Your task to perform on an android device: install app "DoorDash - Food Delivery" Image 0: 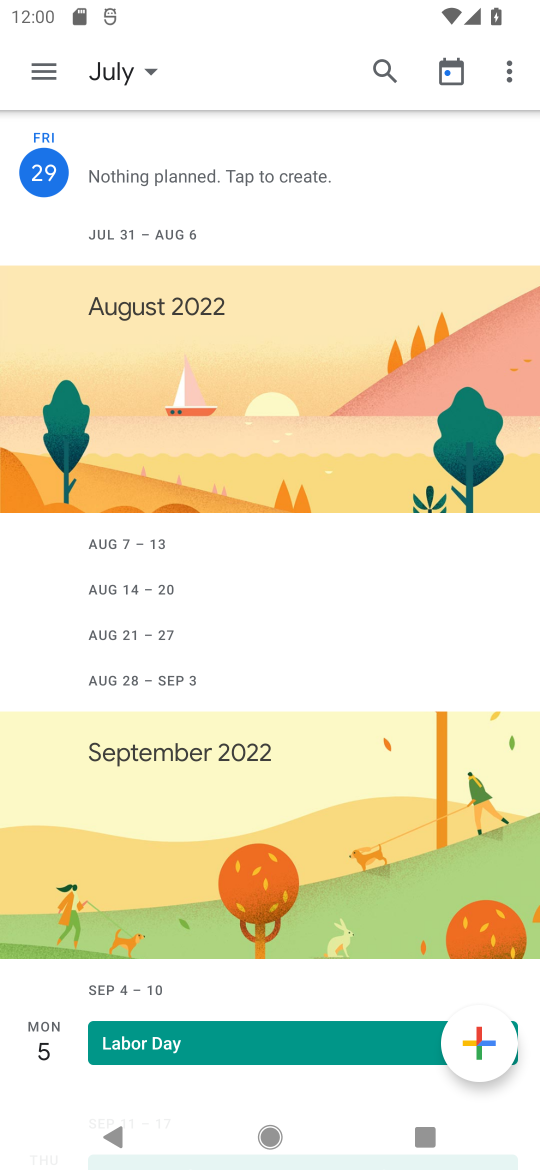
Step 0: press home button
Your task to perform on an android device: install app "DoorDash - Food Delivery" Image 1: 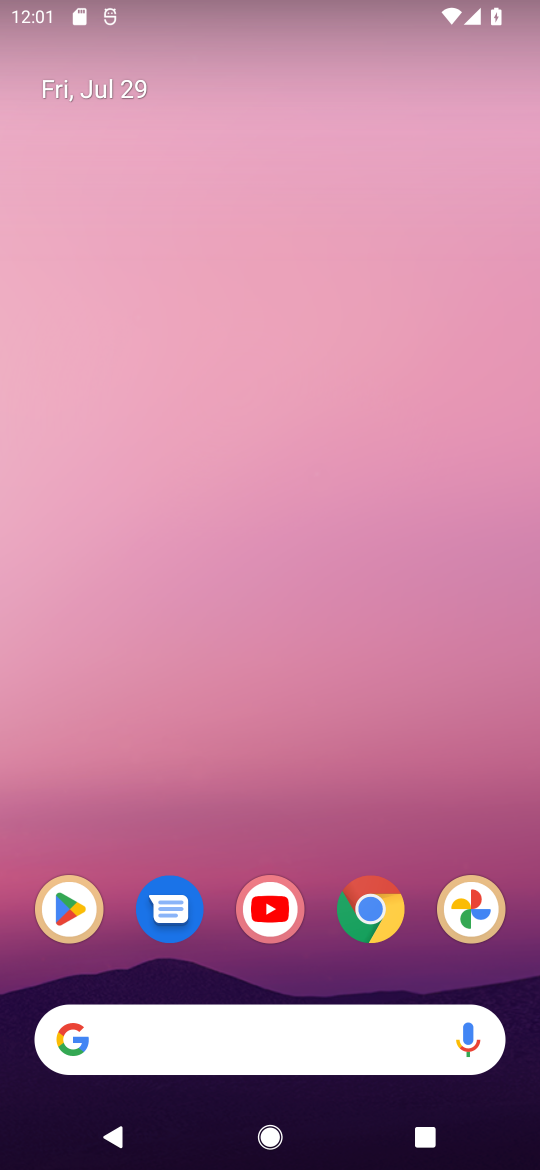
Step 1: click (60, 917)
Your task to perform on an android device: install app "DoorDash - Food Delivery" Image 2: 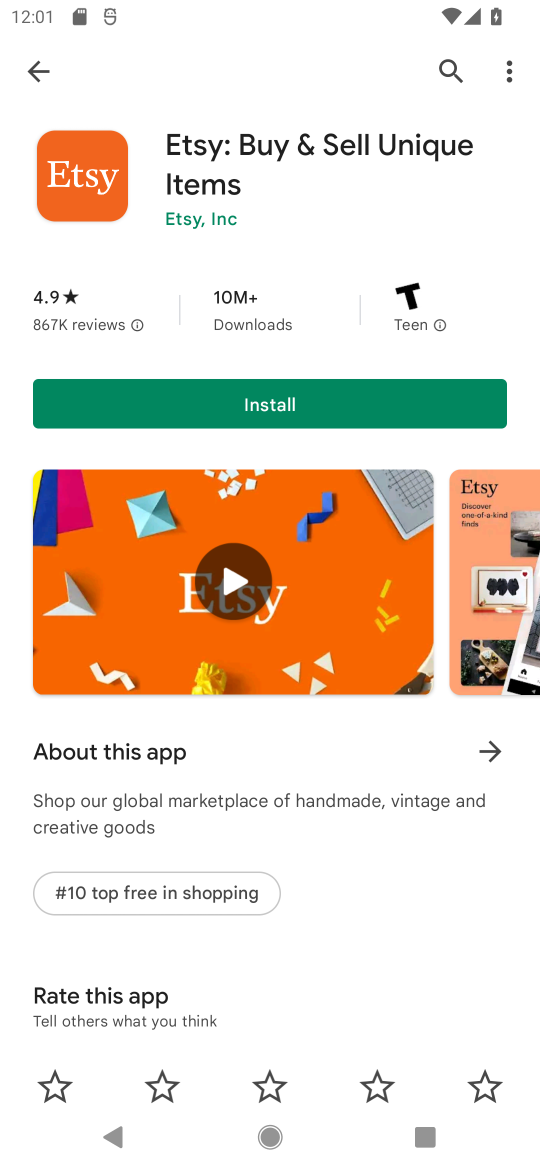
Step 2: click (446, 69)
Your task to perform on an android device: install app "DoorDash - Food Delivery" Image 3: 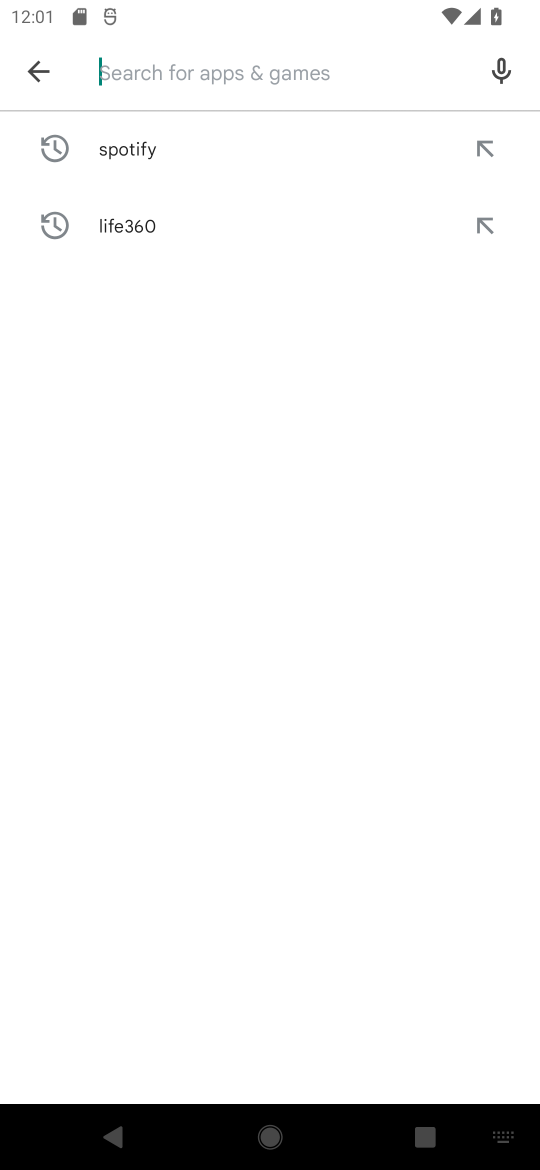
Step 3: type "DoorDash - Food Delivery"
Your task to perform on an android device: install app "DoorDash - Food Delivery" Image 4: 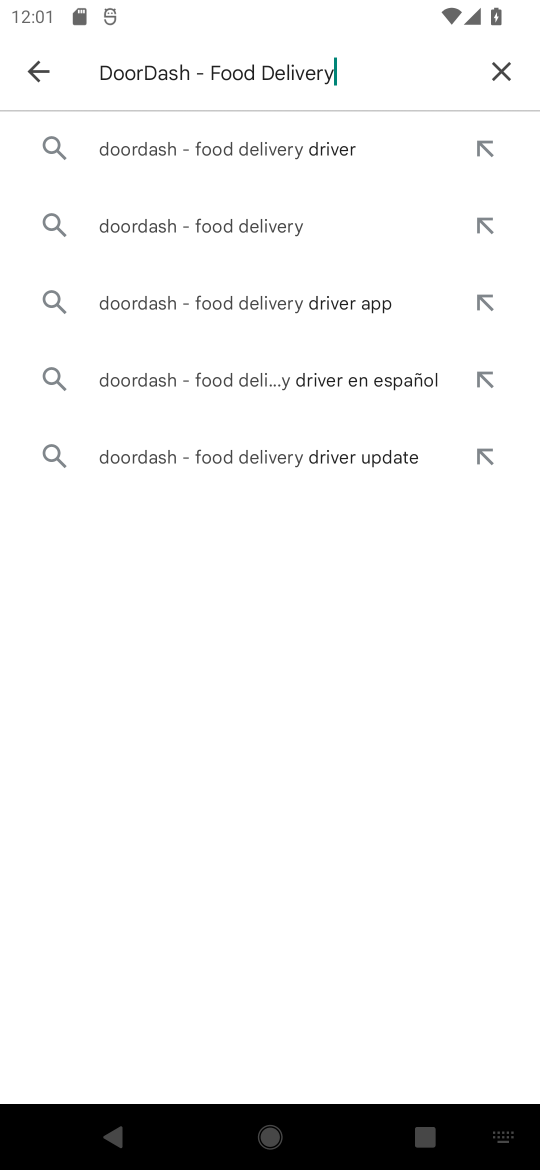
Step 4: click (407, 129)
Your task to perform on an android device: install app "DoorDash - Food Delivery" Image 5: 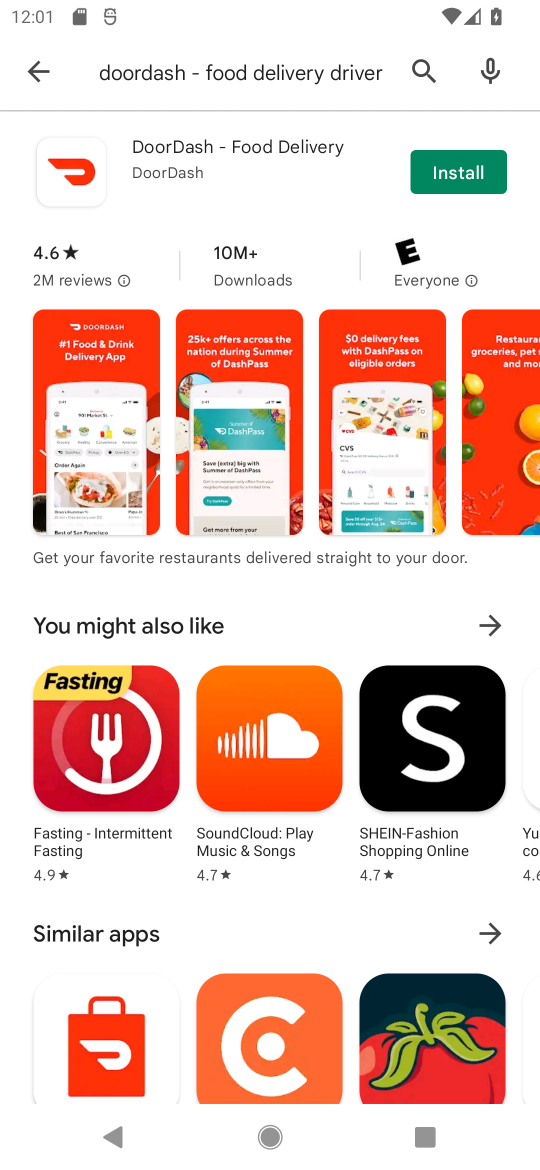
Step 5: click (446, 174)
Your task to perform on an android device: install app "DoorDash - Food Delivery" Image 6: 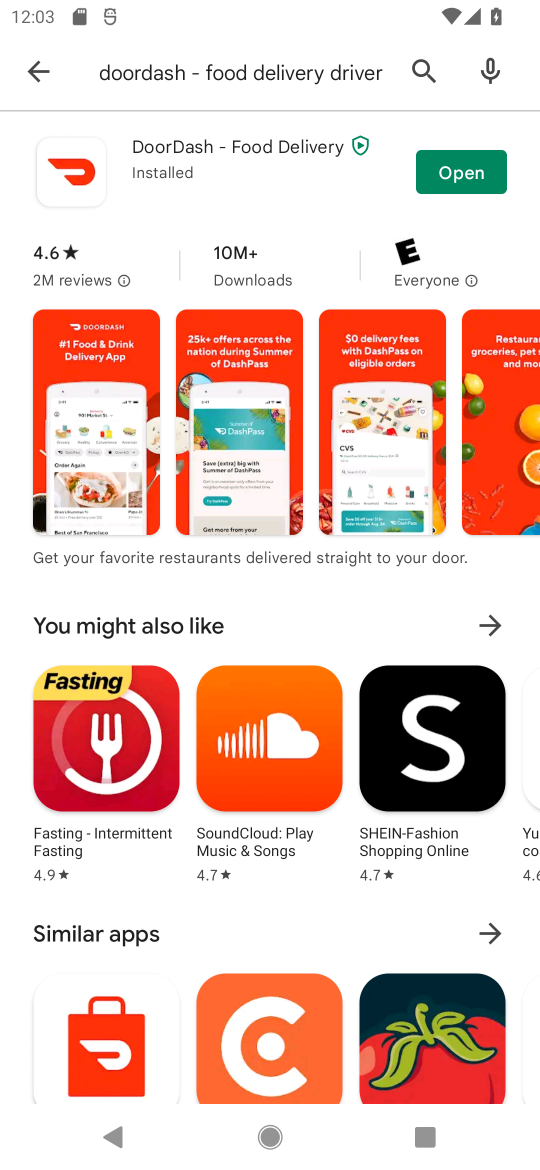
Step 6: task complete